Your task to perform on an android device: Search for pizza restaurants on Maps Image 0: 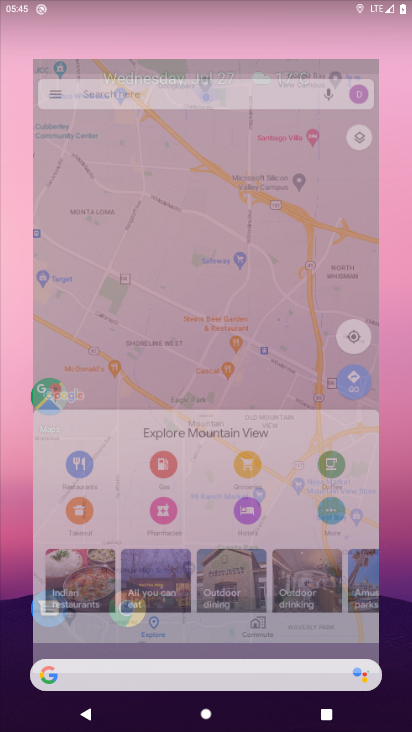
Step 0: press home button
Your task to perform on an android device: Search for pizza restaurants on Maps Image 1: 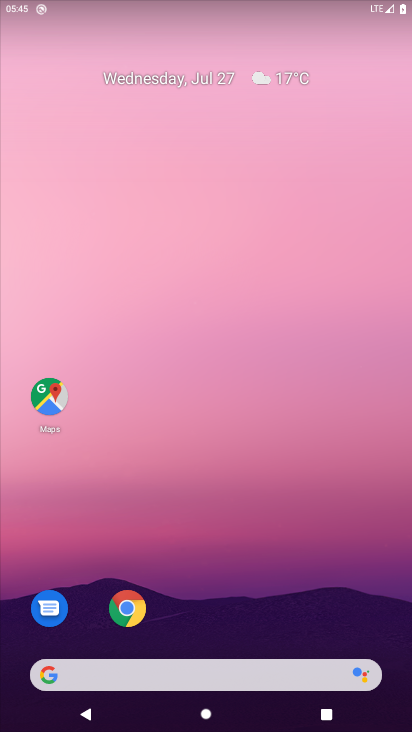
Step 1: click (50, 394)
Your task to perform on an android device: Search for pizza restaurants on Maps Image 2: 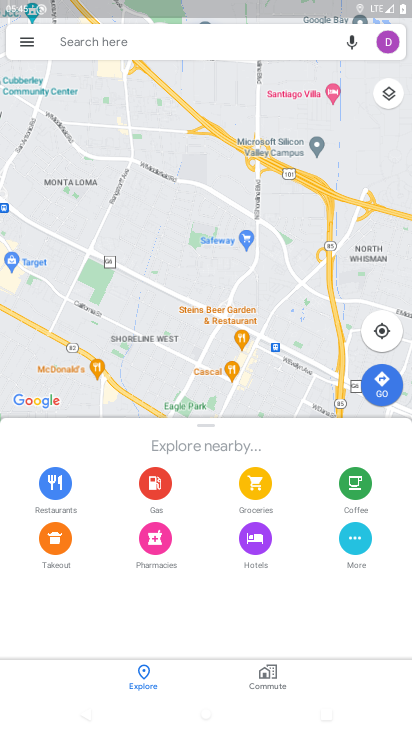
Step 2: click (113, 43)
Your task to perform on an android device: Search for pizza restaurants on Maps Image 3: 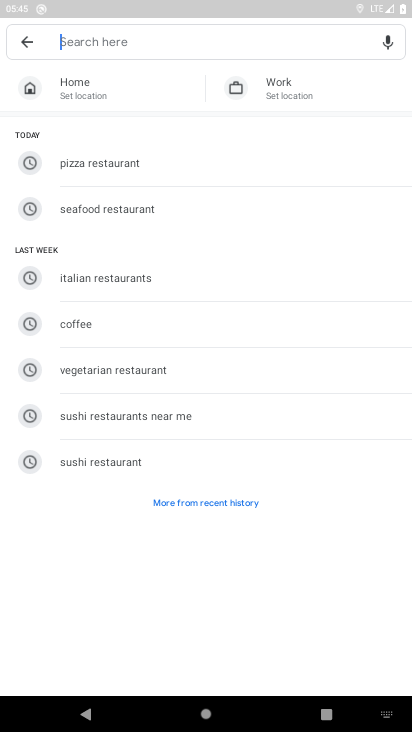
Step 3: click (95, 159)
Your task to perform on an android device: Search for pizza restaurants on Maps Image 4: 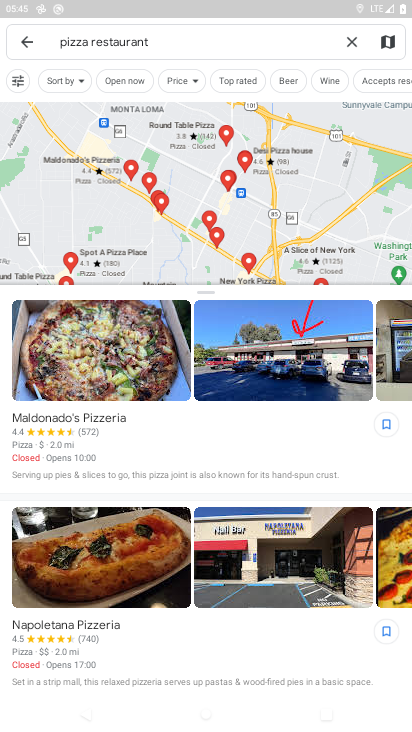
Step 4: task complete